Your task to perform on an android device: manage bookmarks in the chrome app Image 0: 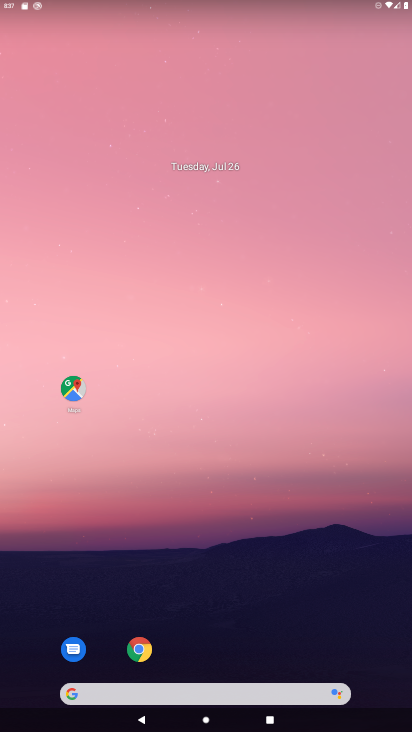
Step 0: click (145, 655)
Your task to perform on an android device: manage bookmarks in the chrome app Image 1: 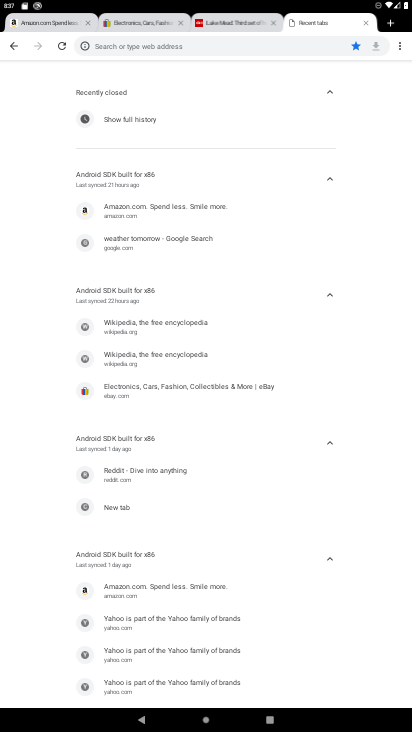
Step 1: click (404, 40)
Your task to perform on an android device: manage bookmarks in the chrome app Image 2: 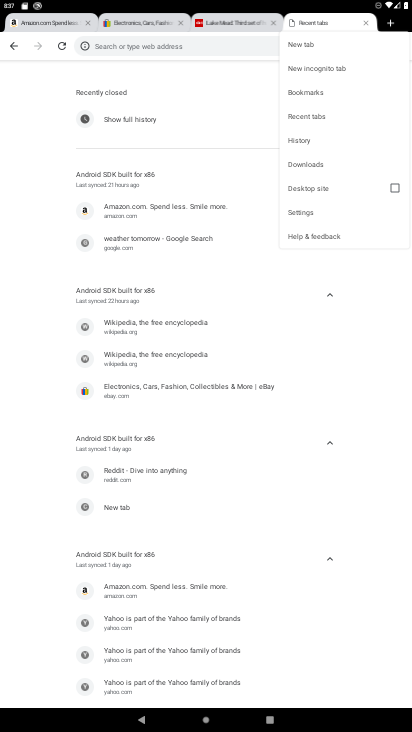
Step 2: click (337, 98)
Your task to perform on an android device: manage bookmarks in the chrome app Image 3: 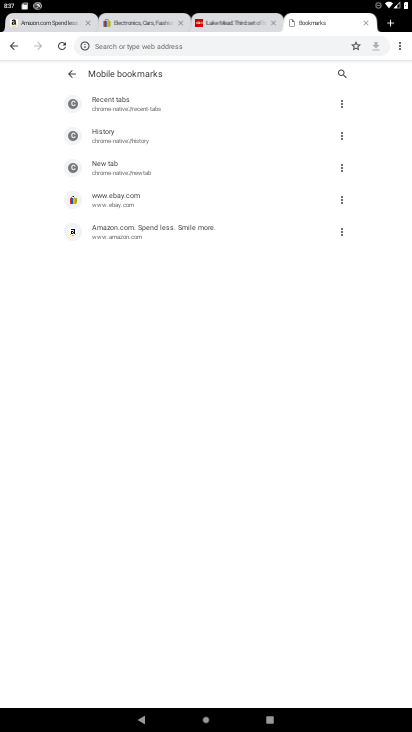
Step 3: click (349, 135)
Your task to perform on an android device: manage bookmarks in the chrome app Image 4: 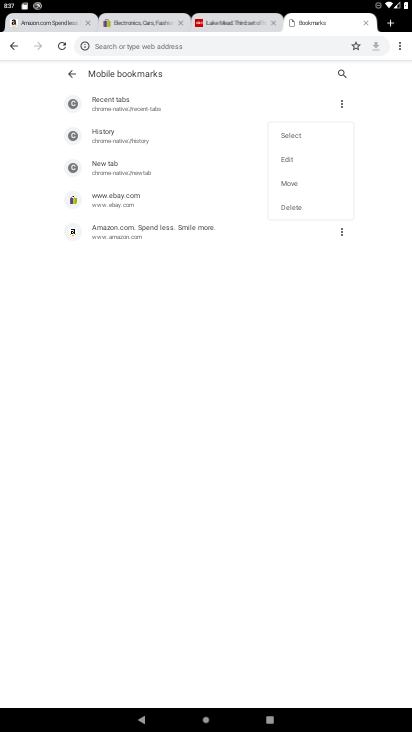
Step 4: click (313, 209)
Your task to perform on an android device: manage bookmarks in the chrome app Image 5: 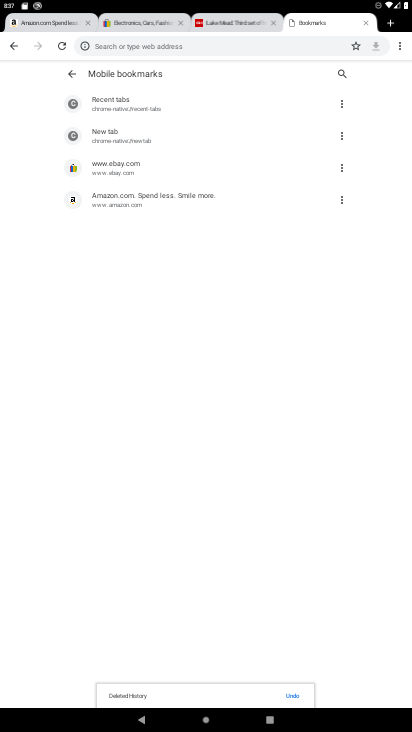
Step 5: task complete